Your task to perform on an android device: turn on wifi Image 0: 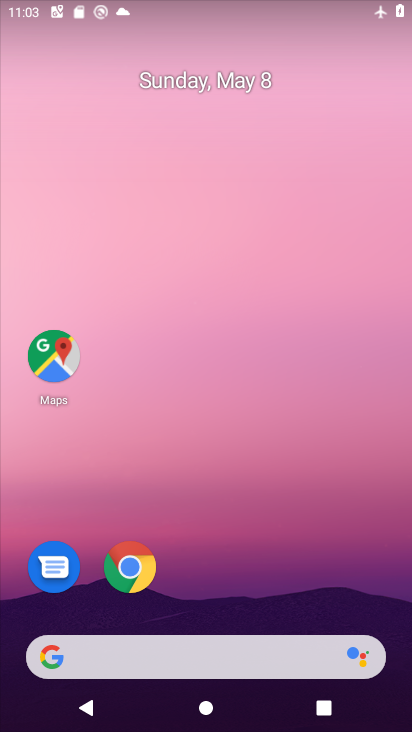
Step 0: drag from (303, 525) to (239, 135)
Your task to perform on an android device: turn on wifi Image 1: 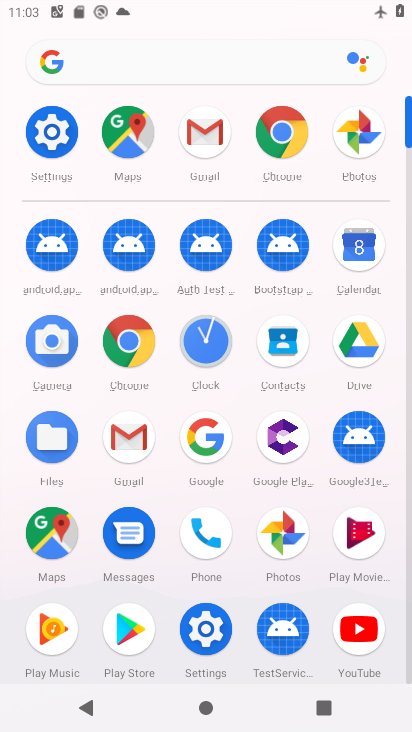
Step 1: click (59, 140)
Your task to perform on an android device: turn on wifi Image 2: 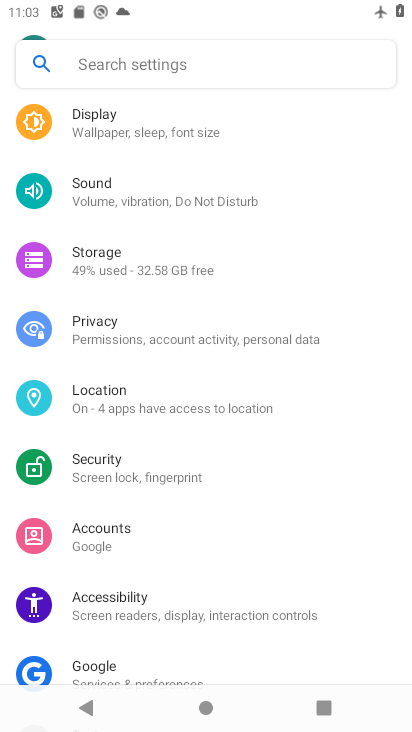
Step 2: drag from (220, 186) to (173, 518)
Your task to perform on an android device: turn on wifi Image 3: 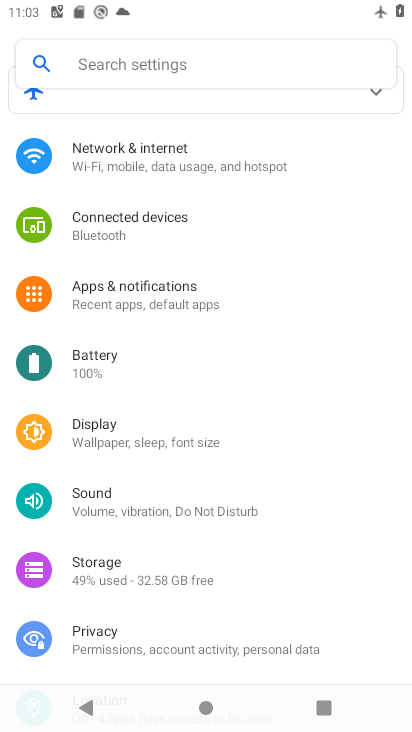
Step 3: drag from (133, 167) to (140, 553)
Your task to perform on an android device: turn on wifi Image 4: 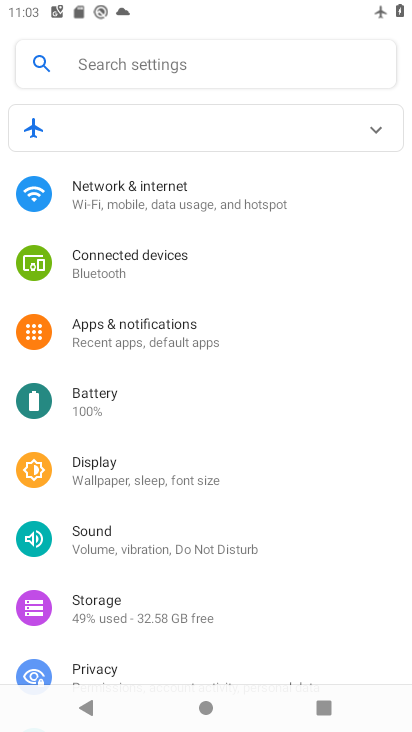
Step 4: click (171, 208)
Your task to perform on an android device: turn on wifi Image 5: 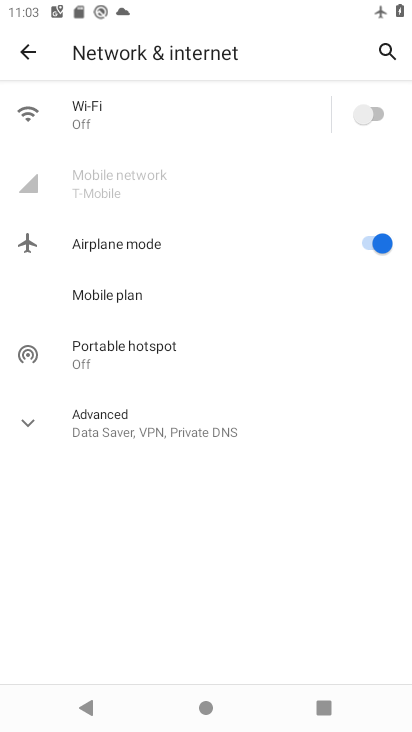
Step 5: click (148, 121)
Your task to perform on an android device: turn on wifi Image 6: 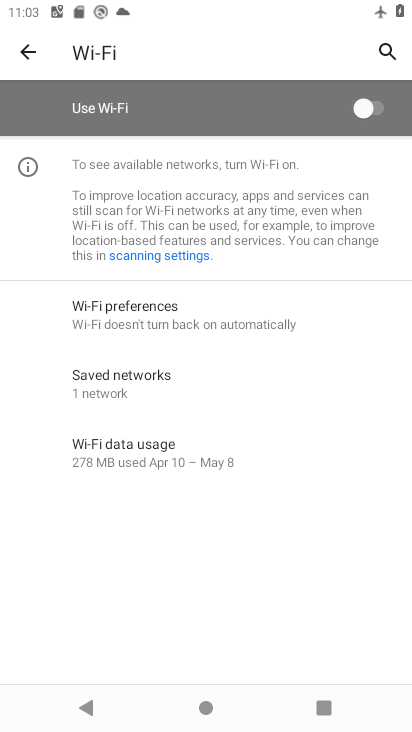
Step 6: click (377, 125)
Your task to perform on an android device: turn on wifi Image 7: 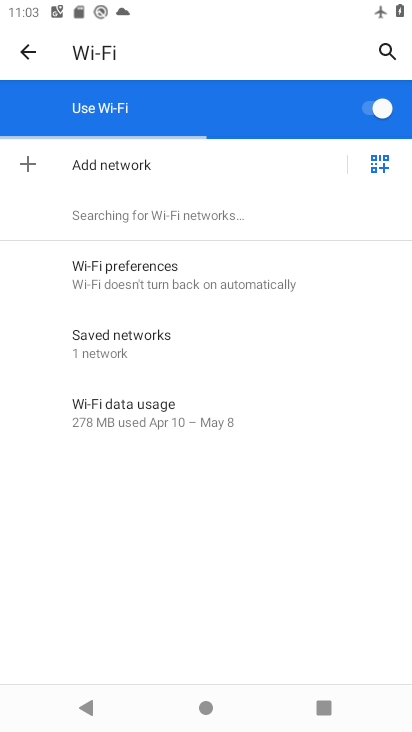
Step 7: task complete